Your task to perform on an android device: Check the news Image 0: 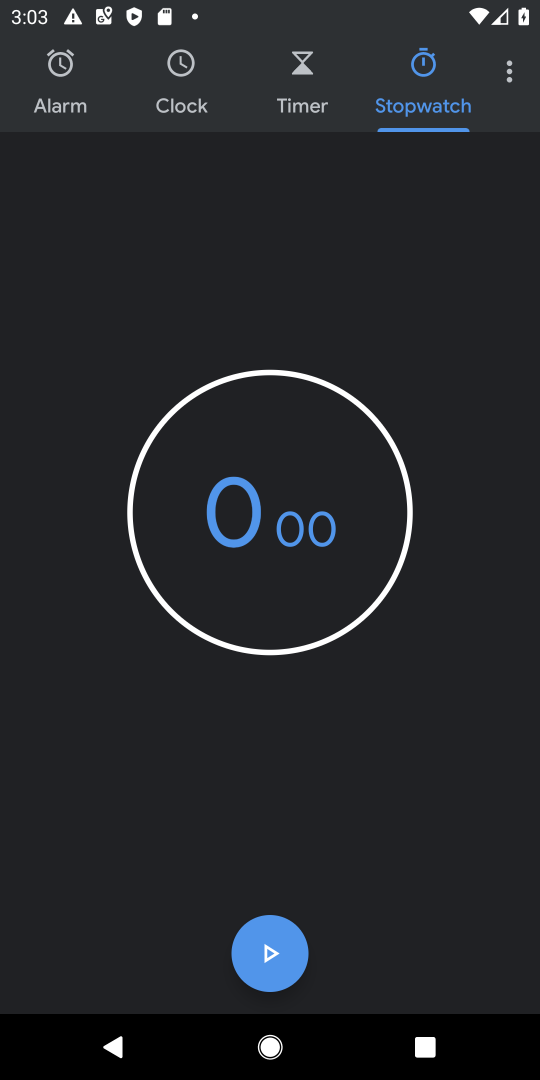
Step 0: press back button
Your task to perform on an android device: Check the news Image 1: 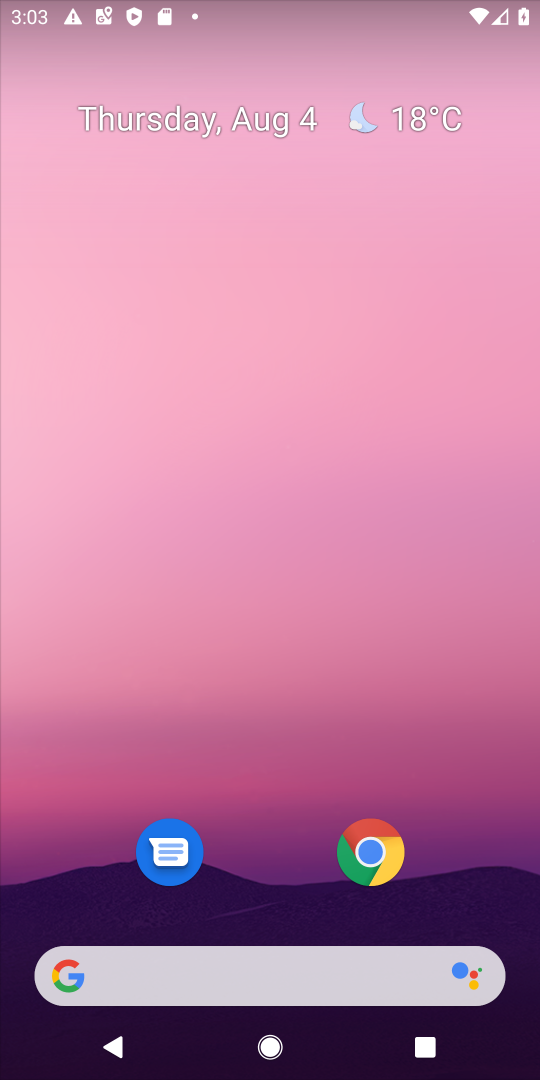
Step 1: click (175, 988)
Your task to perform on an android device: Check the news Image 2: 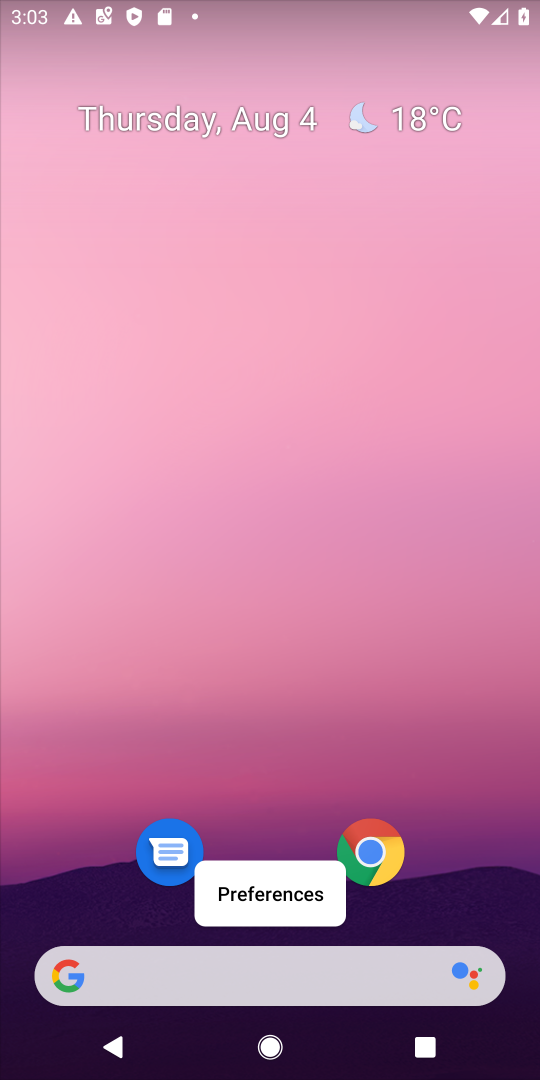
Step 2: click (222, 987)
Your task to perform on an android device: Check the news Image 3: 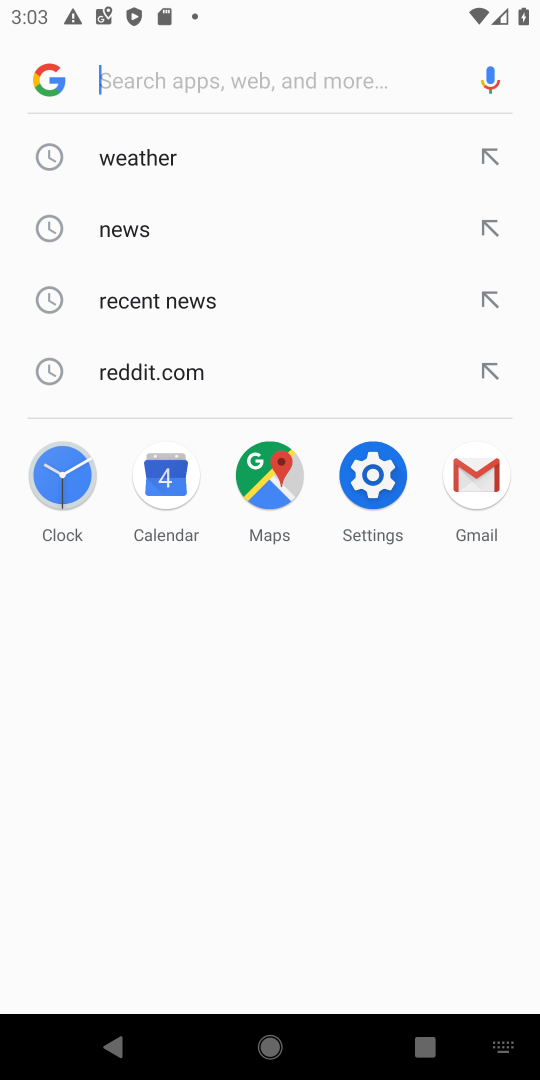
Step 3: click (156, 233)
Your task to perform on an android device: Check the news Image 4: 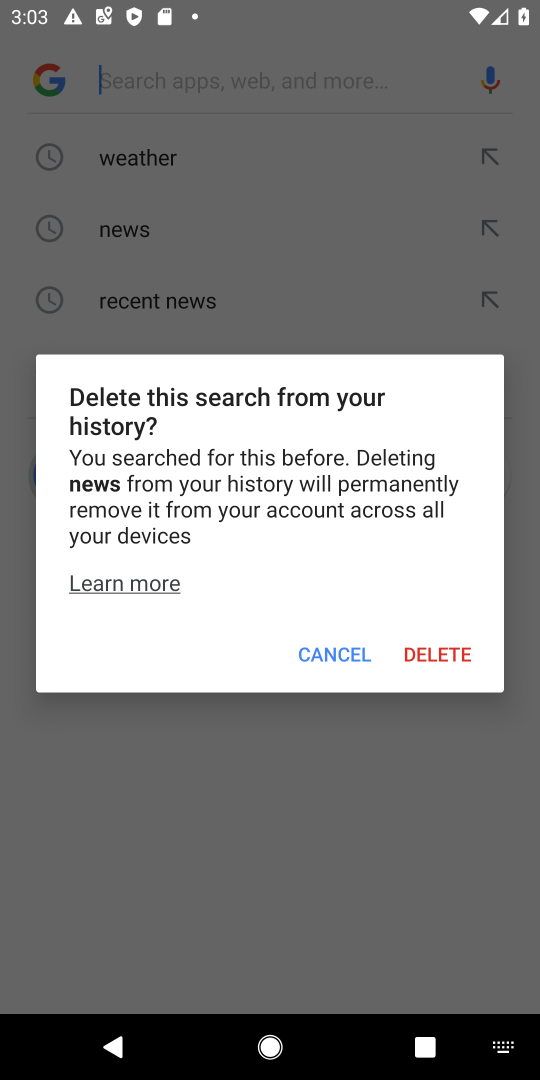
Step 4: click (343, 654)
Your task to perform on an android device: Check the news Image 5: 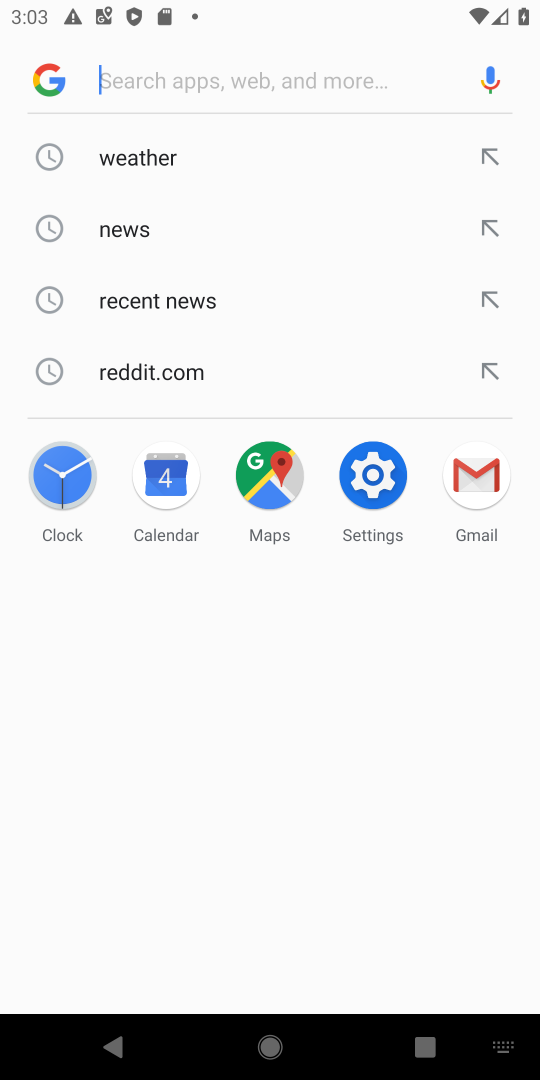
Step 5: click (136, 232)
Your task to perform on an android device: Check the news Image 6: 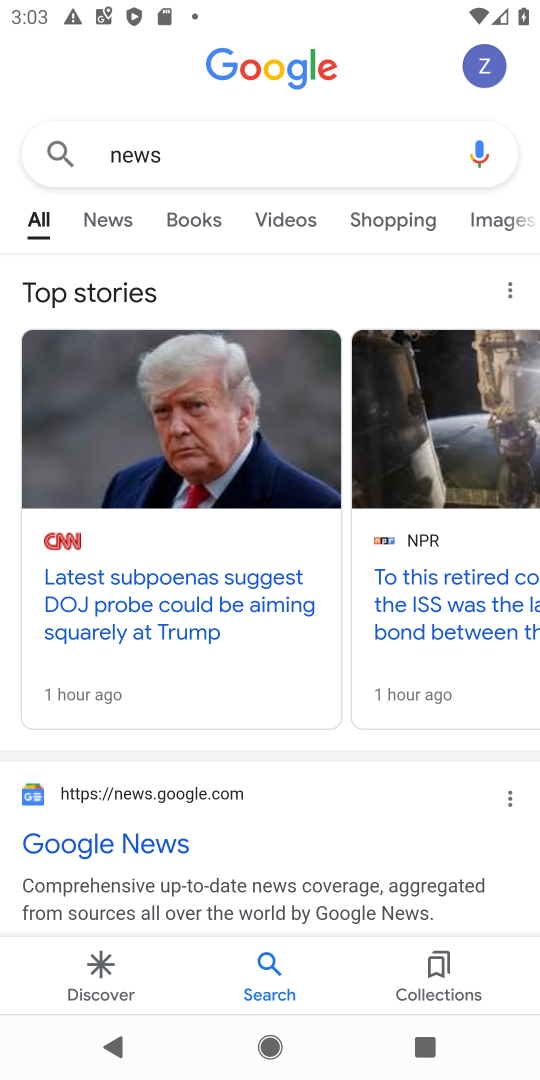
Step 6: task complete